Your task to perform on an android device: show emergency info Image 0: 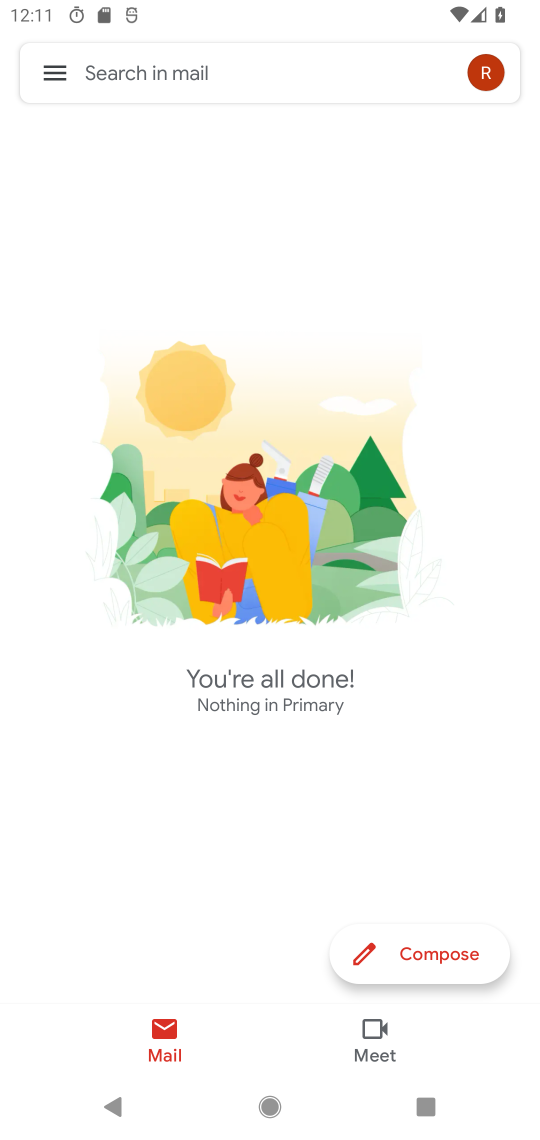
Step 0: press home button
Your task to perform on an android device: show emergency info Image 1: 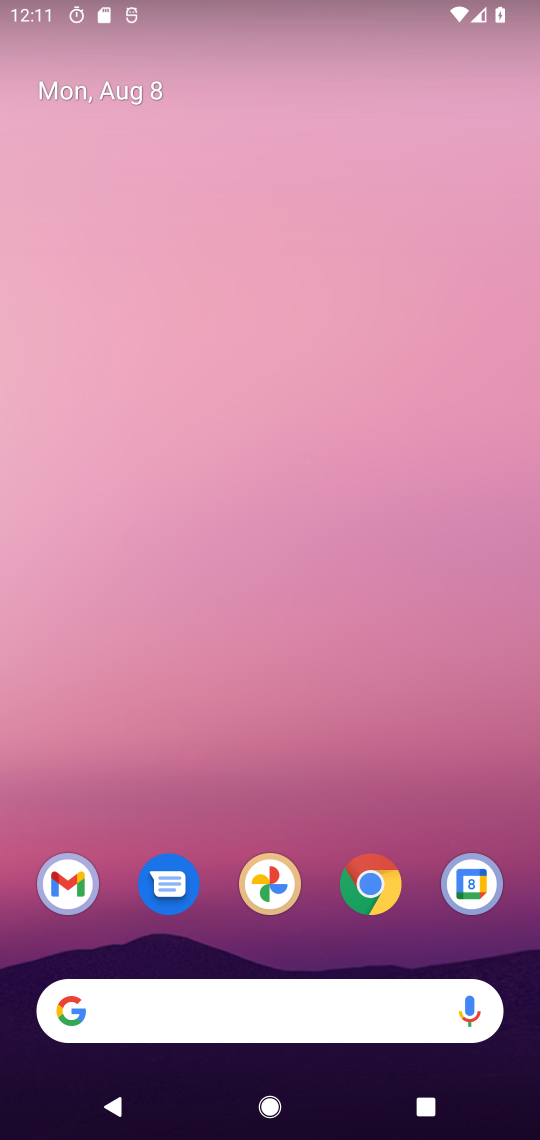
Step 1: drag from (253, 925) to (253, 284)
Your task to perform on an android device: show emergency info Image 2: 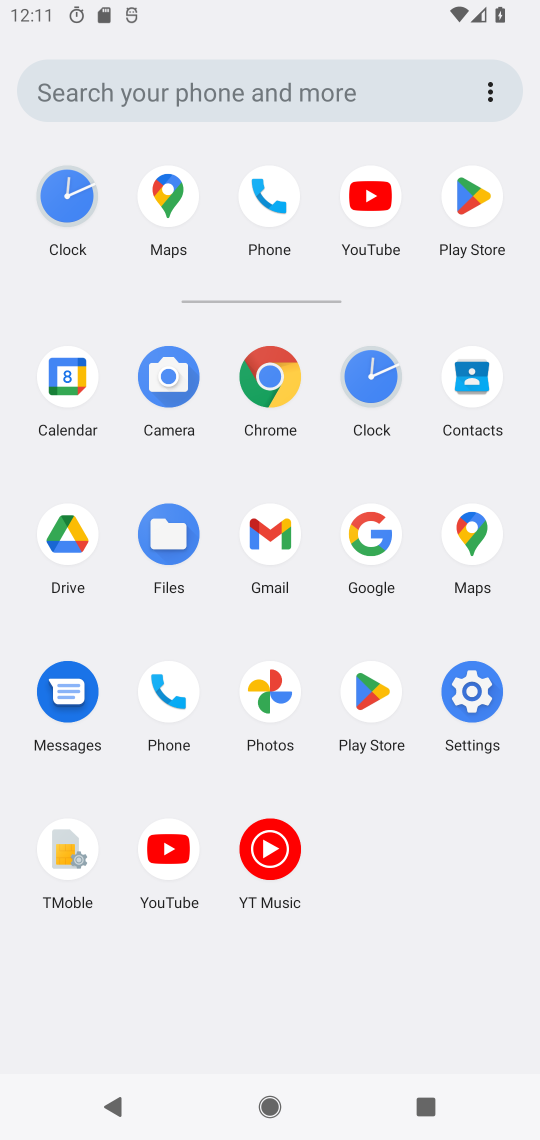
Step 2: click (475, 693)
Your task to perform on an android device: show emergency info Image 3: 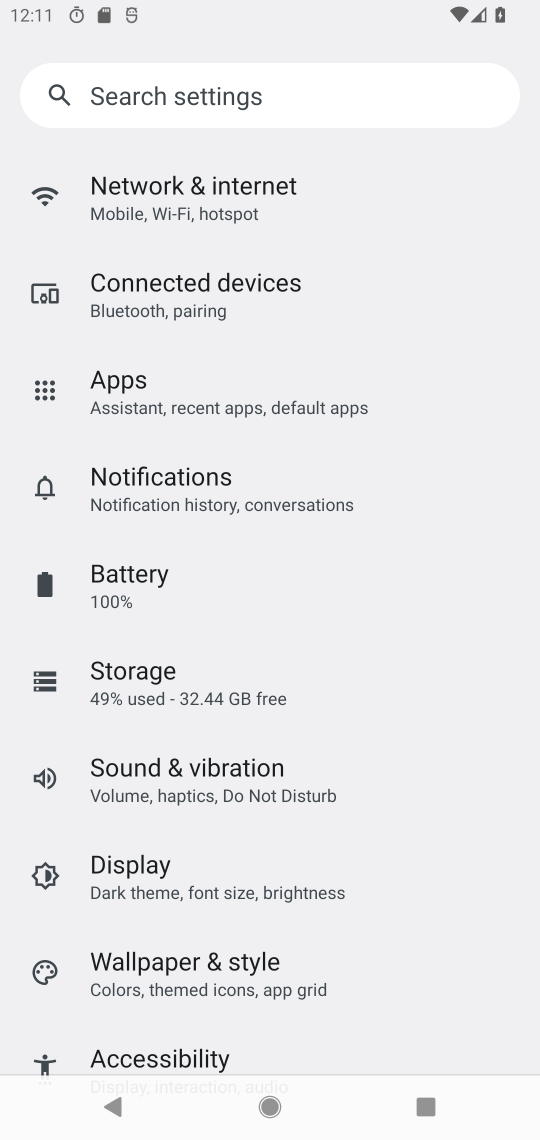
Step 3: drag from (223, 649) to (240, 148)
Your task to perform on an android device: show emergency info Image 4: 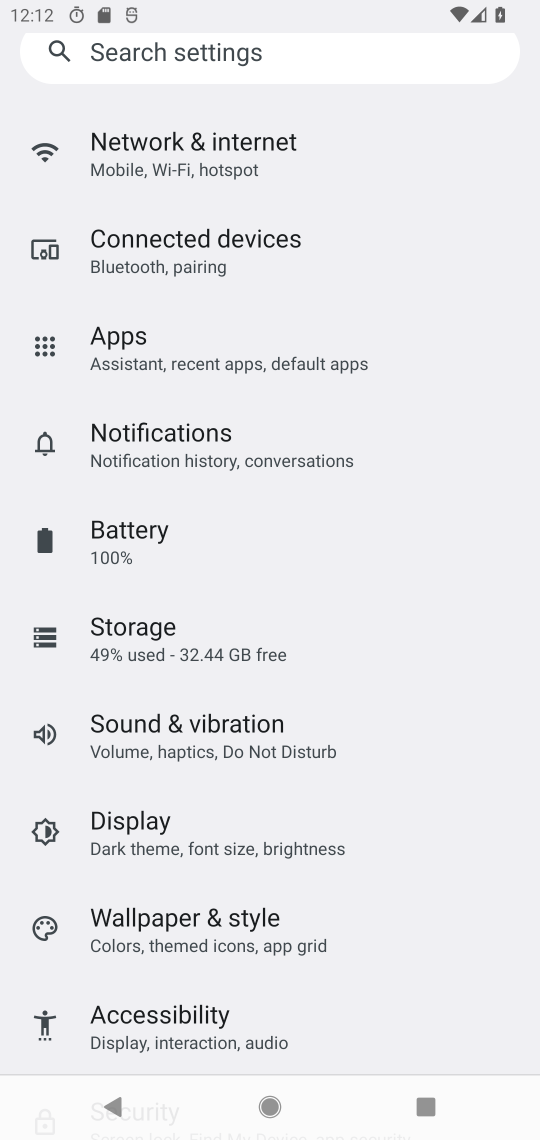
Step 4: drag from (200, 984) to (200, 431)
Your task to perform on an android device: show emergency info Image 5: 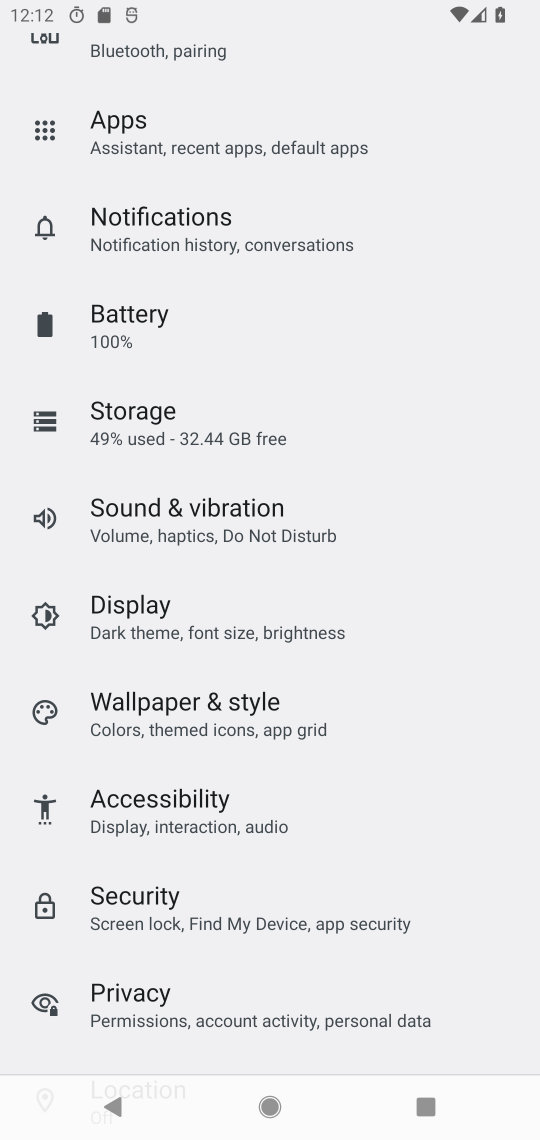
Step 5: drag from (190, 983) to (210, 560)
Your task to perform on an android device: show emergency info Image 6: 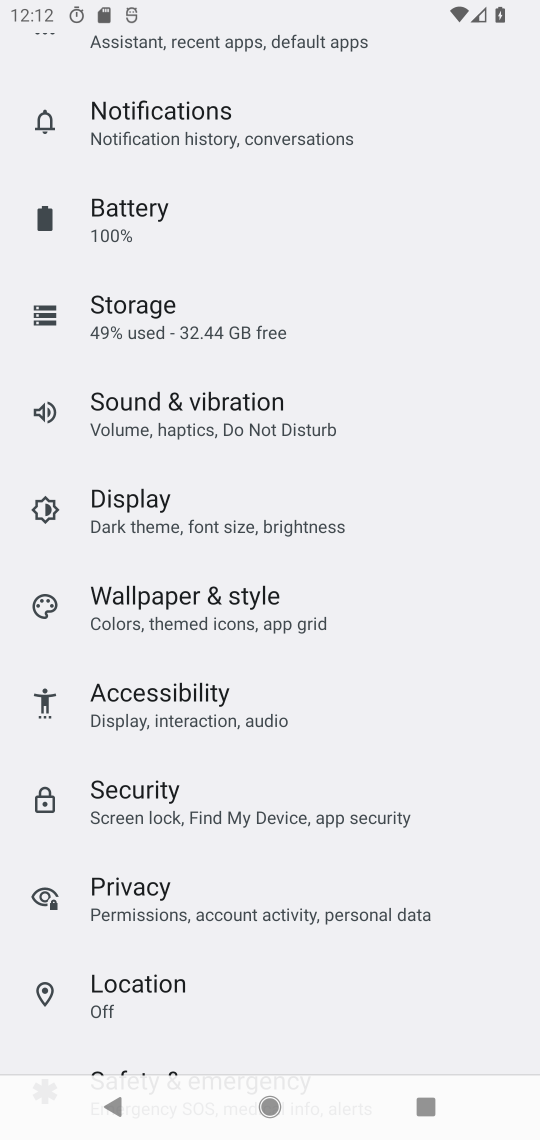
Step 6: drag from (174, 856) to (205, 281)
Your task to perform on an android device: show emergency info Image 7: 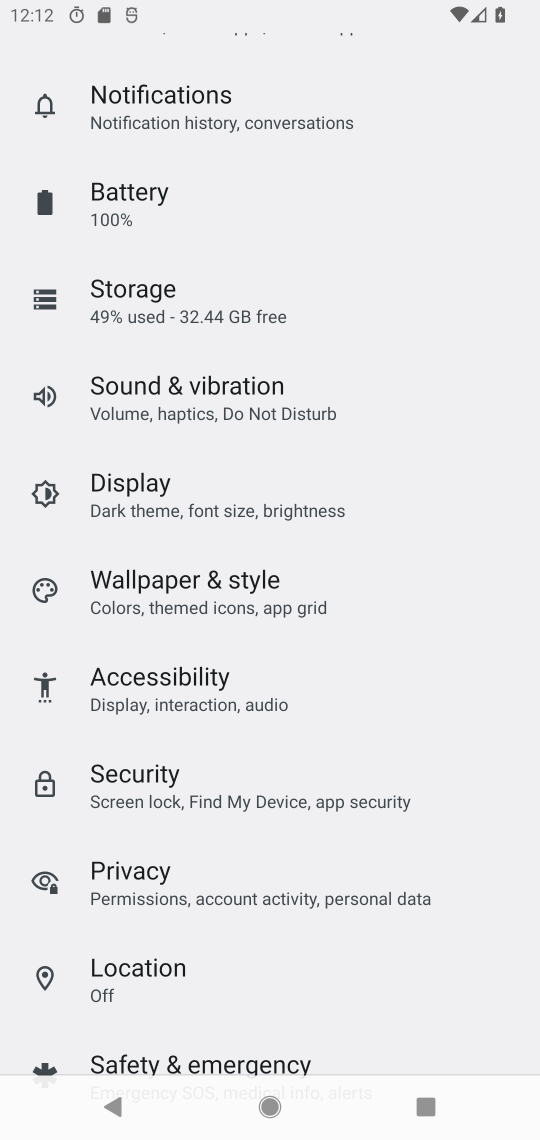
Step 7: drag from (224, 654) to (255, 320)
Your task to perform on an android device: show emergency info Image 8: 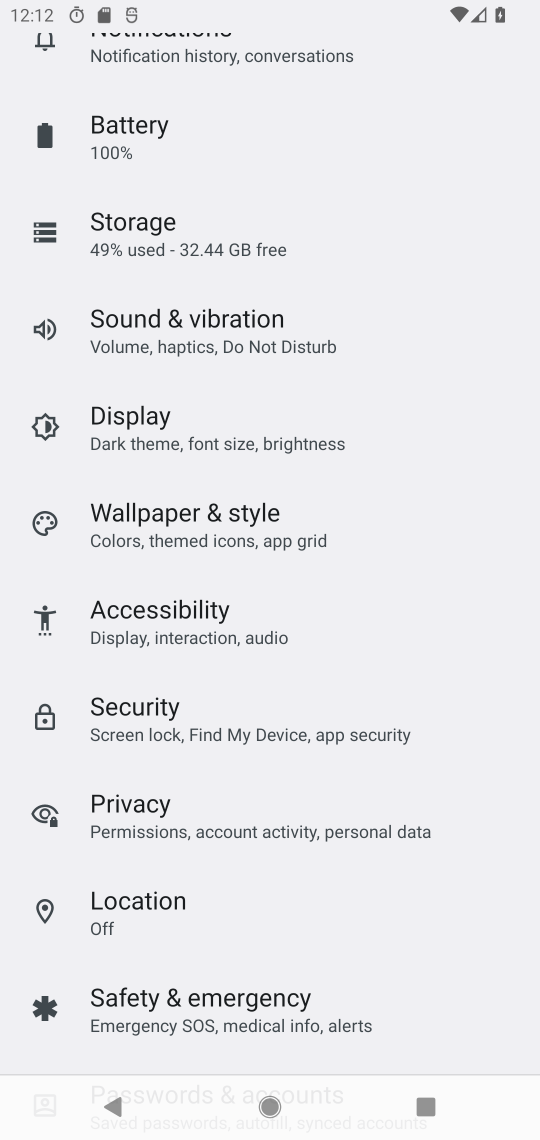
Step 8: drag from (280, 520) to (325, 254)
Your task to perform on an android device: show emergency info Image 9: 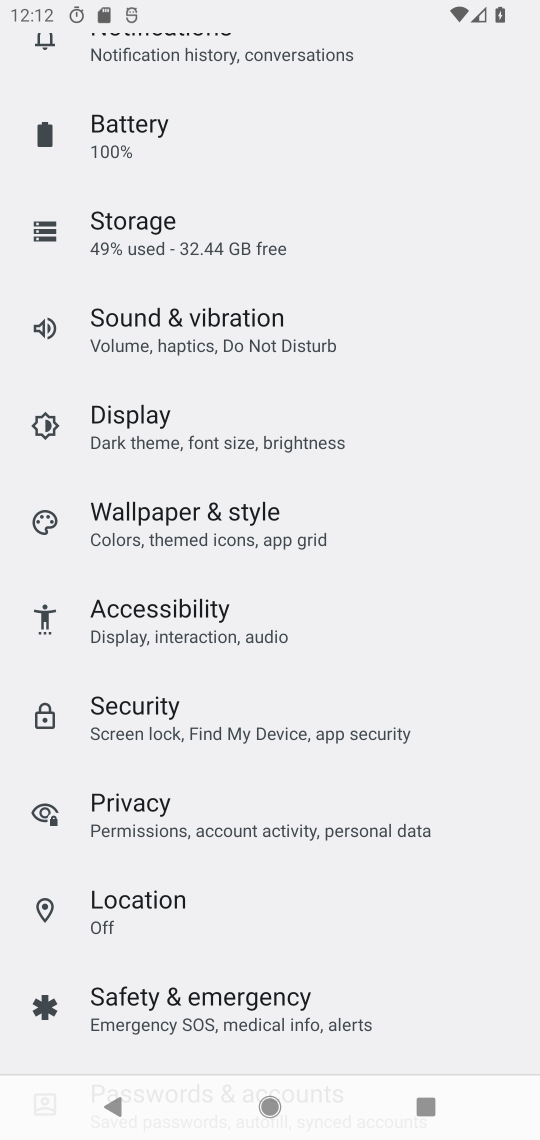
Step 9: drag from (288, 857) to (288, 324)
Your task to perform on an android device: show emergency info Image 10: 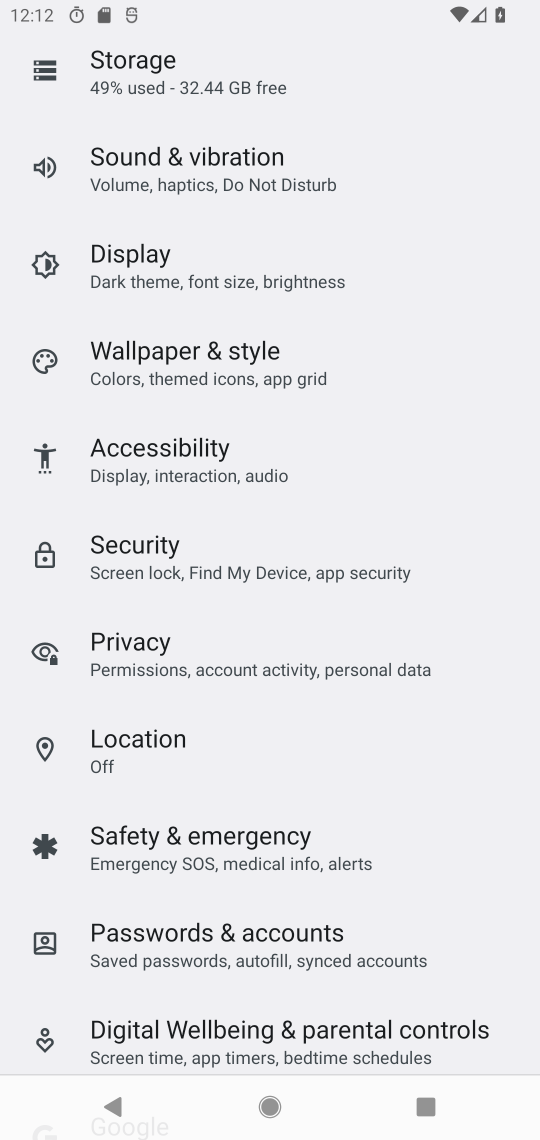
Step 10: drag from (249, 1017) to (249, 316)
Your task to perform on an android device: show emergency info Image 11: 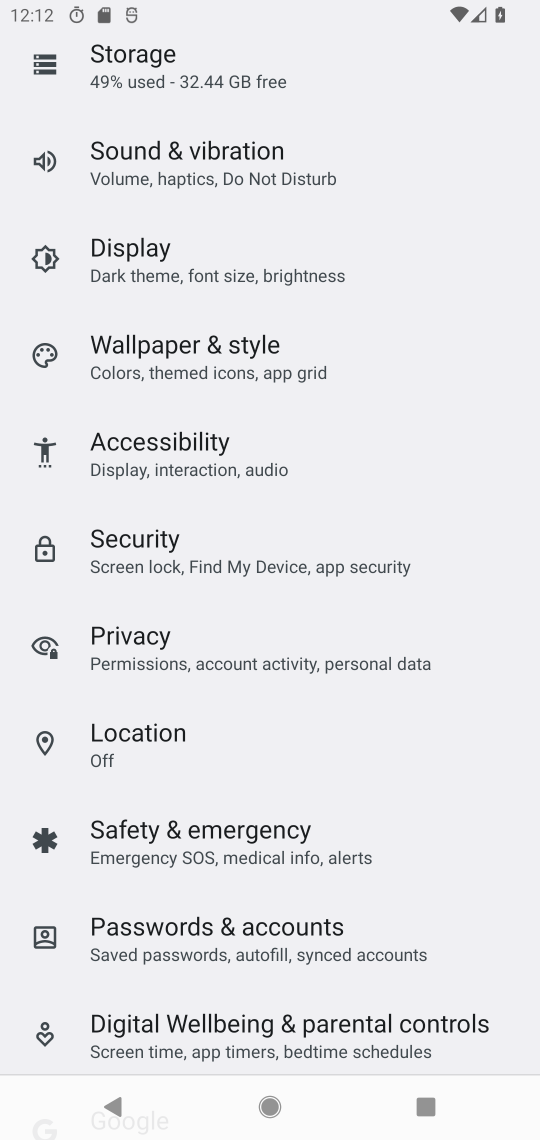
Step 11: drag from (243, 691) to (247, 315)
Your task to perform on an android device: show emergency info Image 12: 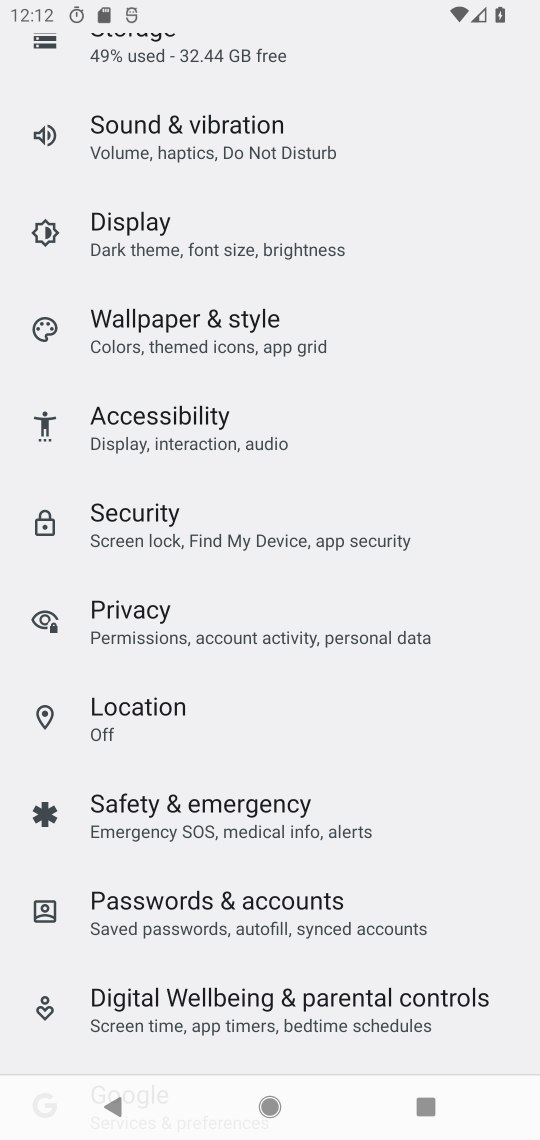
Step 12: drag from (251, 713) to (236, 0)
Your task to perform on an android device: show emergency info Image 13: 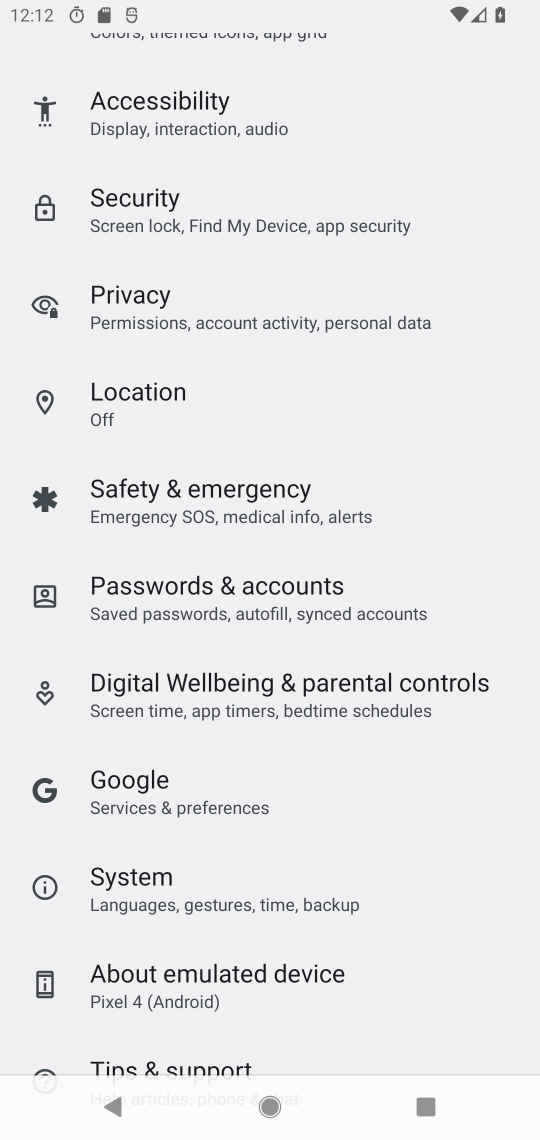
Step 13: click (210, 1002)
Your task to perform on an android device: show emergency info Image 14: 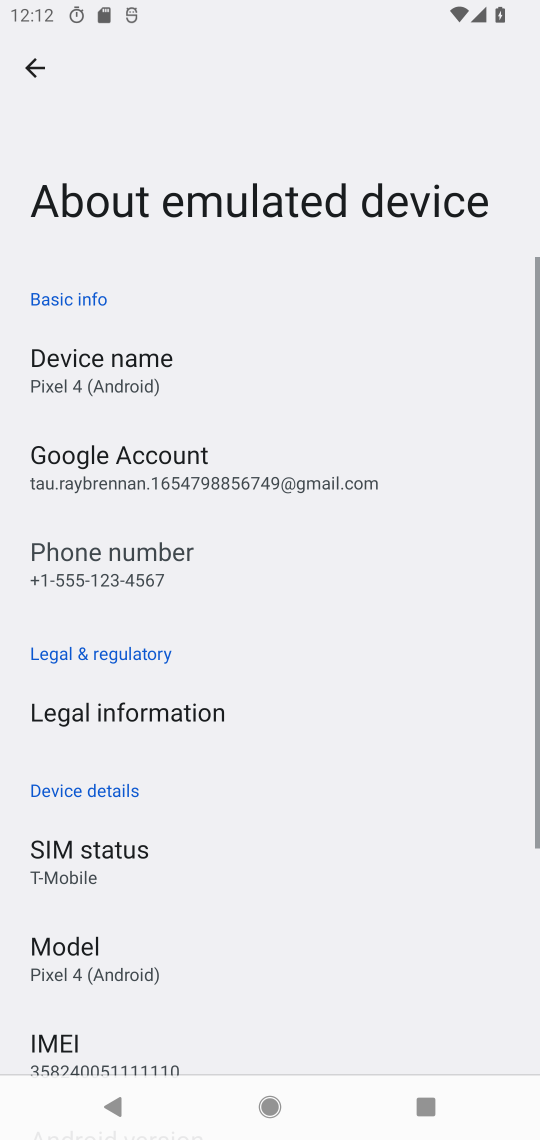
Step 14: task complete